Your task to perform on an android device: See recent photos Image 0: 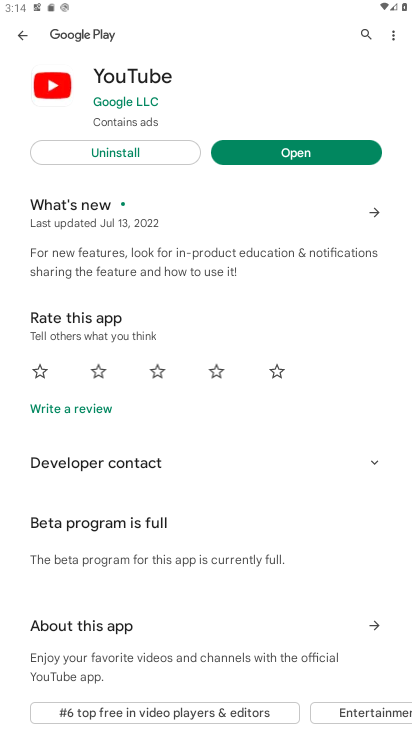
Step 0: press home button
Your task to perform on an android device: See recent photos Image 1: 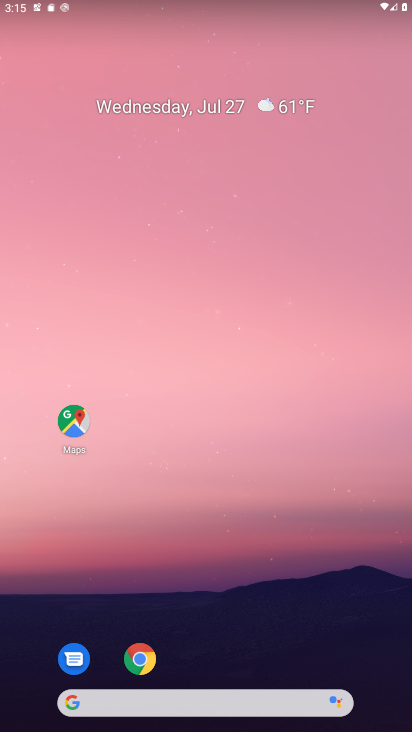
Step 1: drag from (162, 705) to (118, 74)
Your task to perform on an android device: See recent photos Image 2: 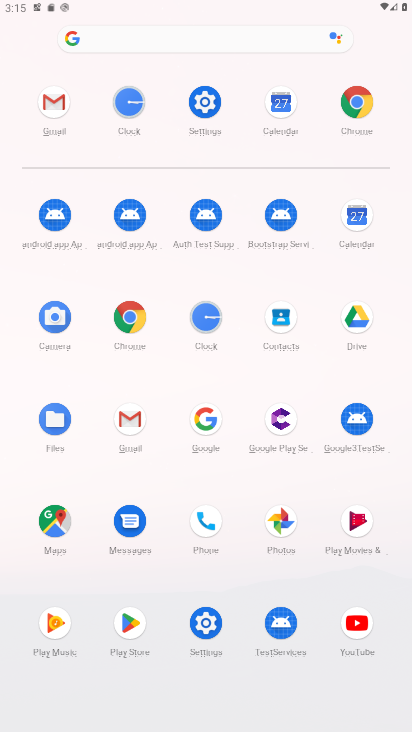
Step 2: click (277, 525)
Your task to perform on an android device: See recent photos Image 3: 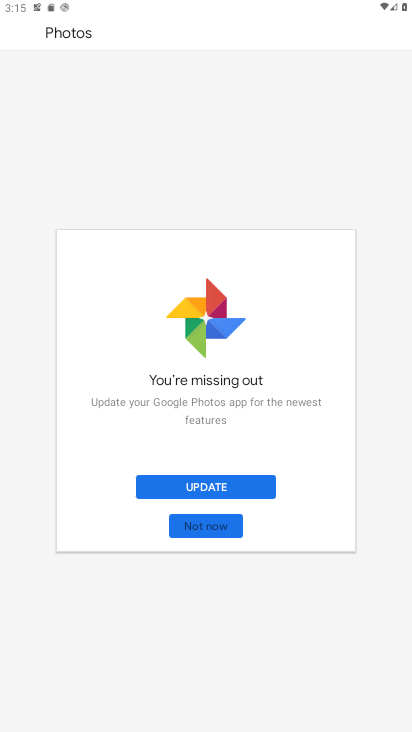
Step 3: click (218, 530)
Your task to perform on an android device: See recent photos Image 4: 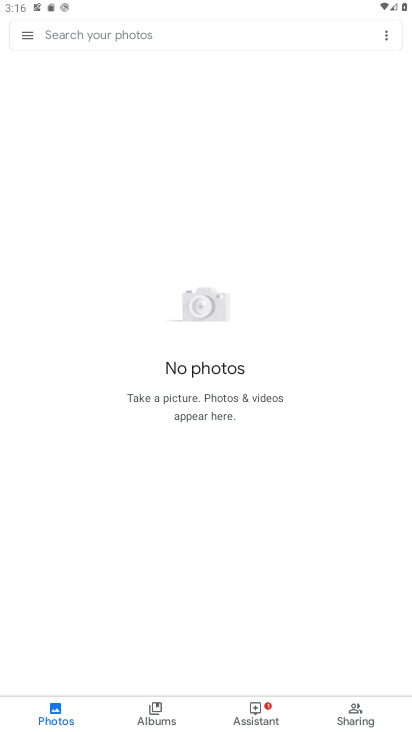
Step 4: task complete